Your task to perform on an android device: Open sound settings Image 0: 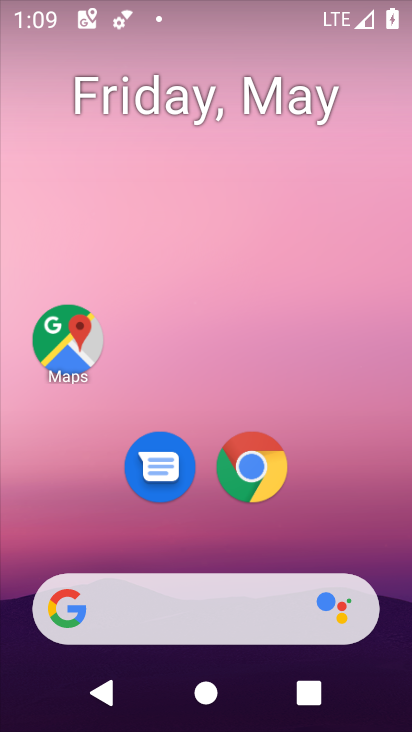
Step 0: drag from (350, 518) to (361, 26)
Your task to perform on an android device: Open sound settings Image 1: 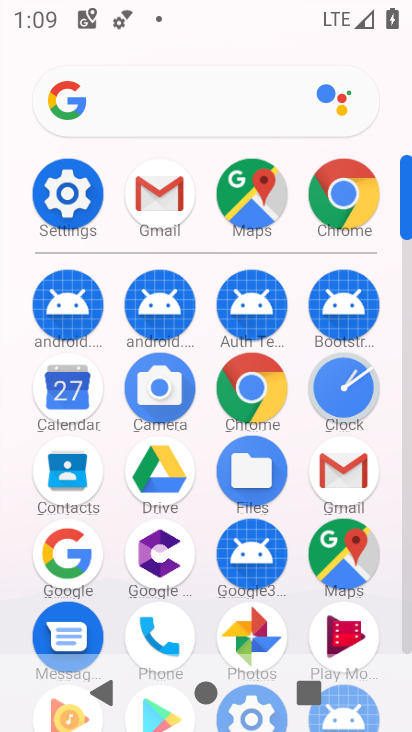
Step 1: click (79, 185)
Your task to perform on an android device: Open sound settings Image 2: 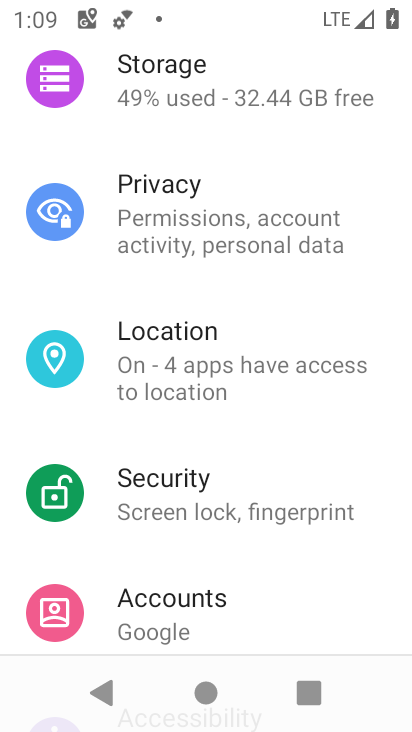
Step 2: drag from (240, 187) to (203, 632)
Your task to perform on an android device: Open sound settings Image 3: 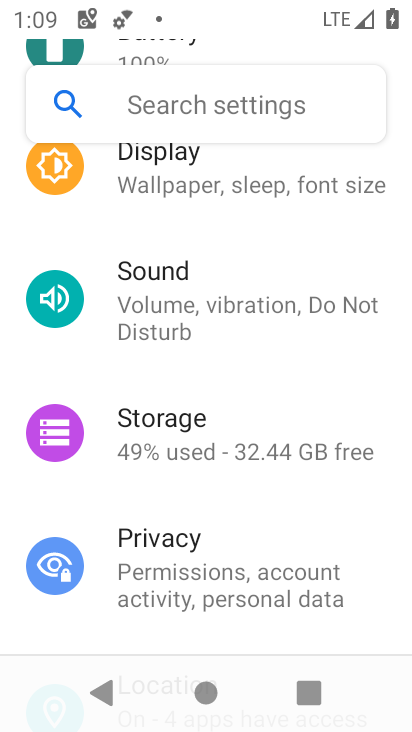
Step 3: drag from (282, 189) to (248, 554)
Your task to perform on an android device: Open sound settings Image 4: 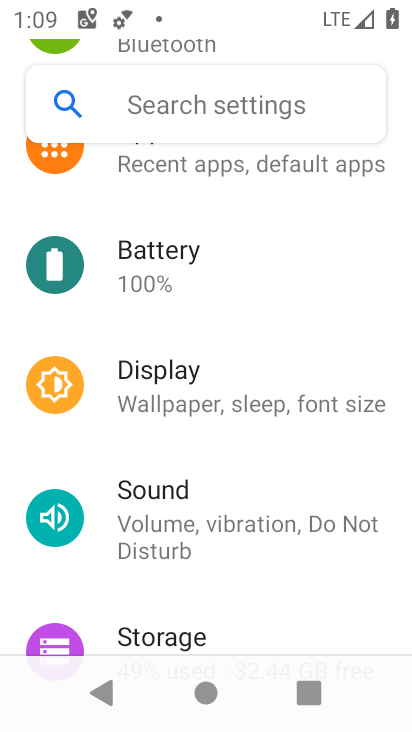
Step 4: click (196, 505)
Your task to perform on an android device: Open sound settings Image 5: 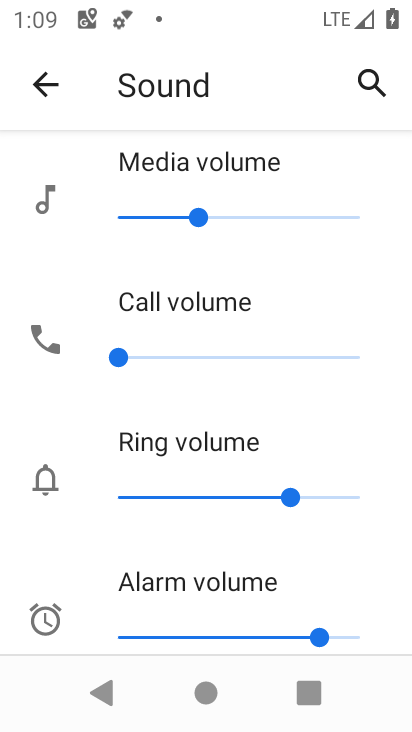
Step 5: task complete